Your task to perform on an android device: find snoozed emails in the gmail app Image 0: 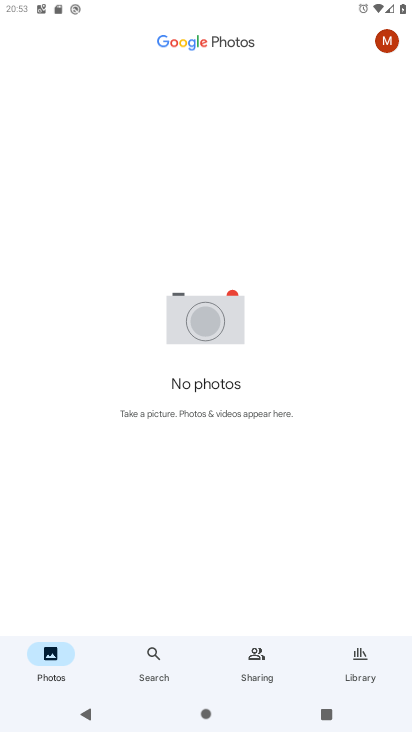
Step 0: press home button
Your task to perform on an android device: find snoozed emails in the gmail app Image 1: 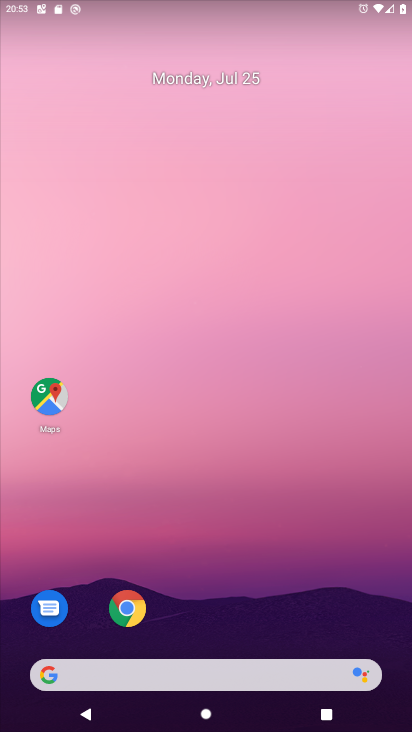
Step 1: drag from (286, 595) to (256, 33)
Your task to perform on an android device: find snoozed emails in the gmail app Image 2: 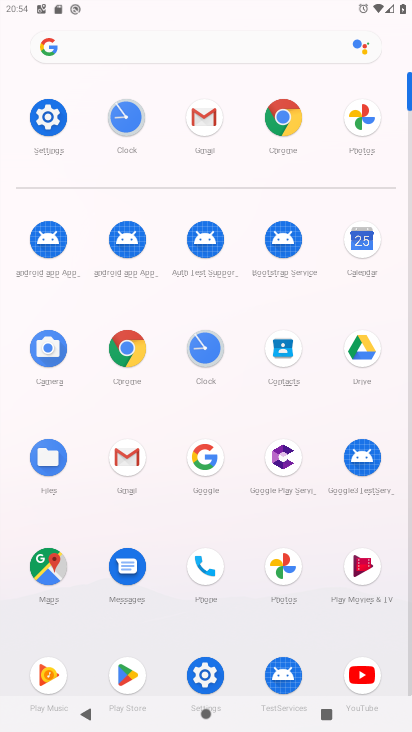
Step 2: click (128, 467)
Your task to perform on an android device: find snoozed emails in the gmail app Image 3: 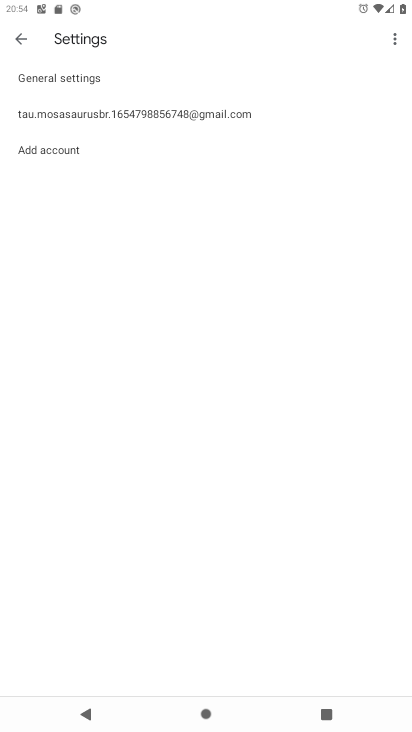
Step 3: click (21, 44)
Your task to perform on an android device: find snoozed emails in the gmail app Image 4: 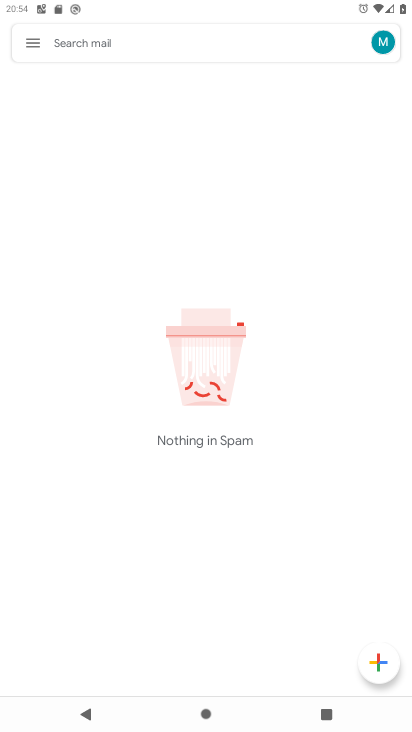
Step 4: click (41, 36)
Your task to perform on an android device: find snoozed emails in the gmail app Image 5: 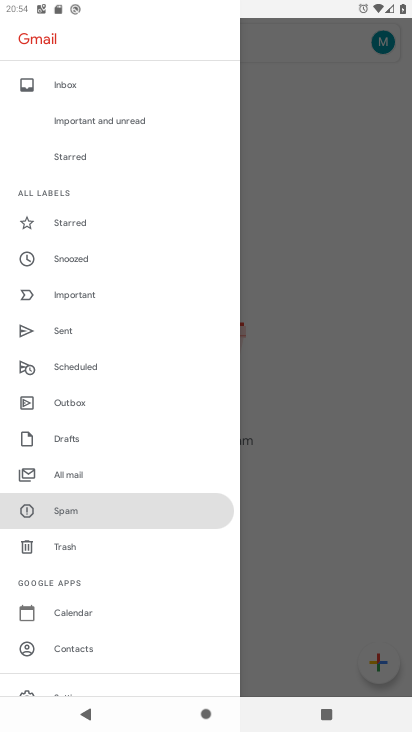
Step 5: click (62, 247)
Your task to perform on an android device: find snoozed emails in the gmail app Image 6: 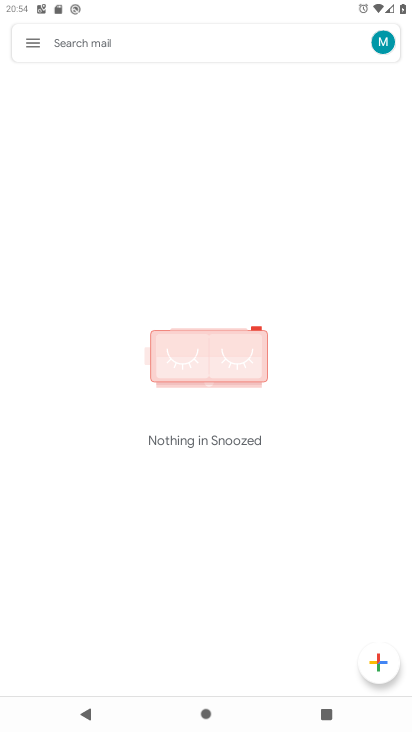
Step 6: task complete